Your task to perform on an android device: find photos in the google photos app Image 0: 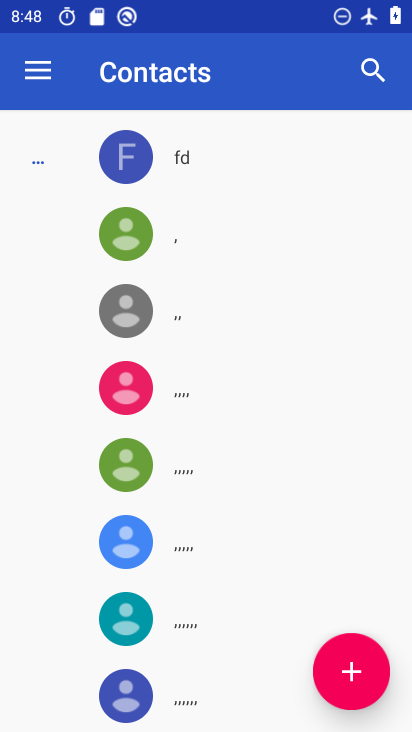
Step 0: press home button
Your task to perform on an android device: find photos in the google photos app Image 1: 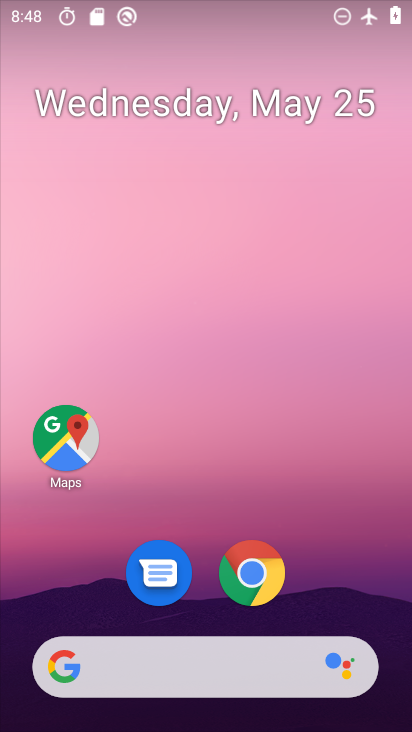
Step 1: drag from (385, 677) to (313, 192)
Your task to perform on an android device: find photos in the google photos app Image 2: 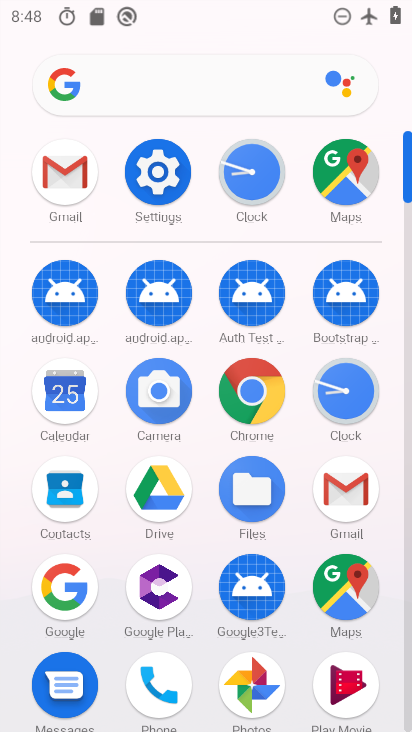
Step 2: click (230, 660)
Your task to perform on an android device: find photos in the google photos app Image 3: 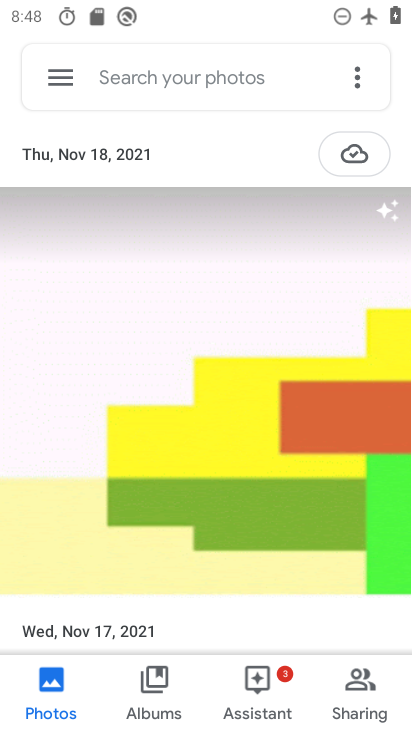
Step 3: task complete